Your task to perform on an android device: Open Google Chrome and click the shortcut for Amazon.com Image 0: 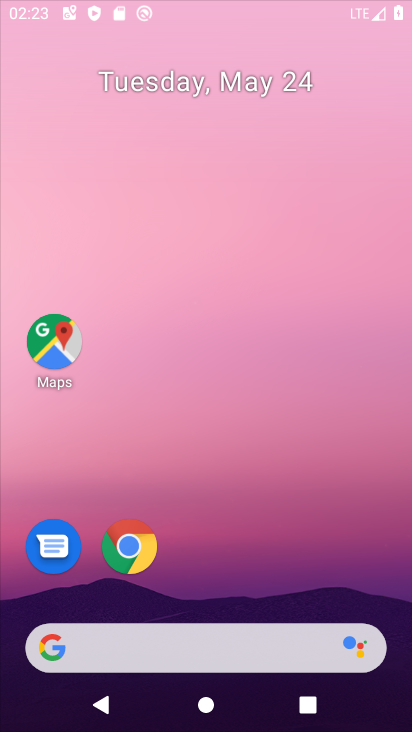
Step 0: click (313, 163)
Your task to perform on an android device: Open Google Chrome and click the shortcut for Amazon.com Image 1: 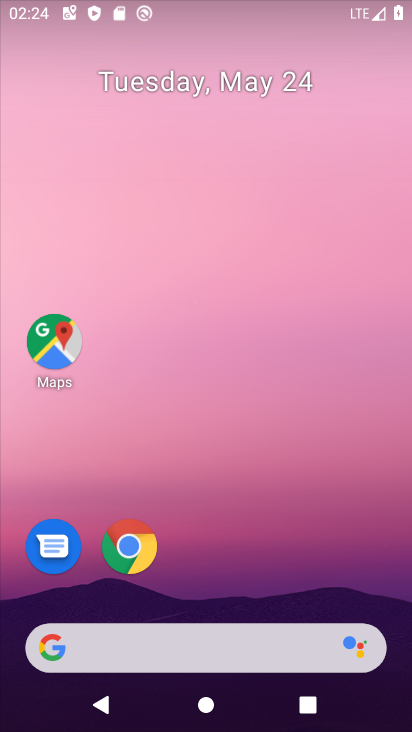
Step 1: drag from (205, 592) to (255, 195)
Your task to perform on an android device: Open Google Chrome and click the shortcut for Amazon.com Image 2: 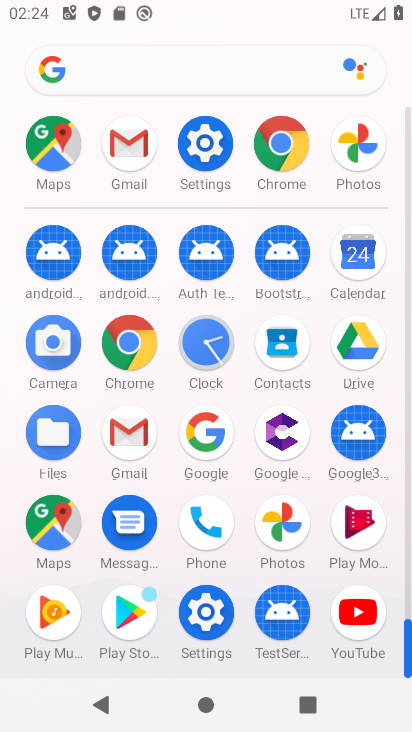
Step 2: click (66, 538)
Your task to perform on an android device: Open Google Chrome and click the shortcut for Amazon.com Image 3: 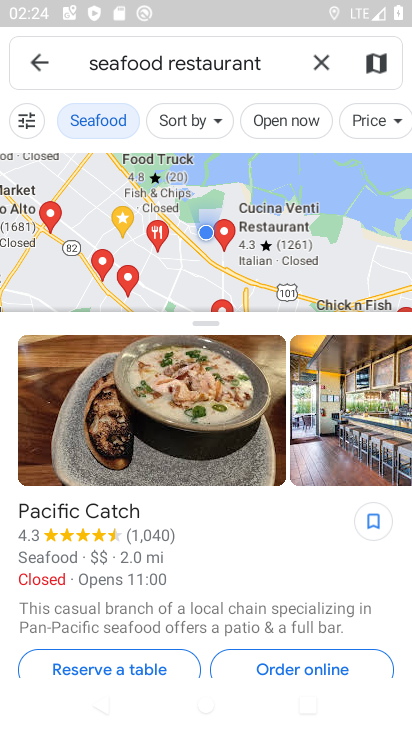
Step 3: drag from (225, 561) to (281, 264)
Your task to perform on an android device: Open Google Chrome and click the shortcut for Amazon.com Image 4: 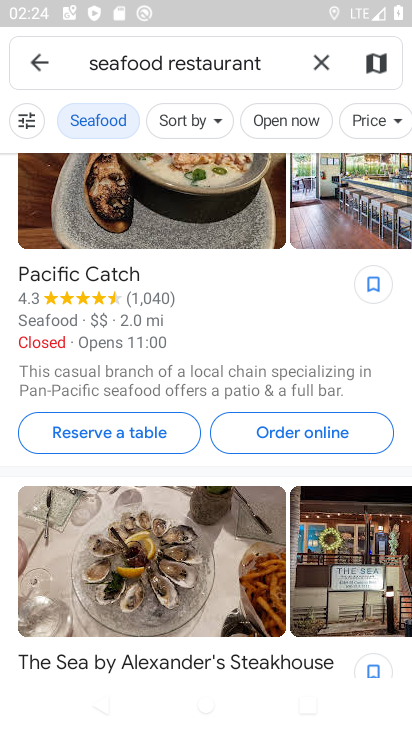
Step 4: drag from (273, 240) to (343, 664)
Your task to perform on an android device: Open Google Chrome and click the shortcut for Amazon.com Image 5: 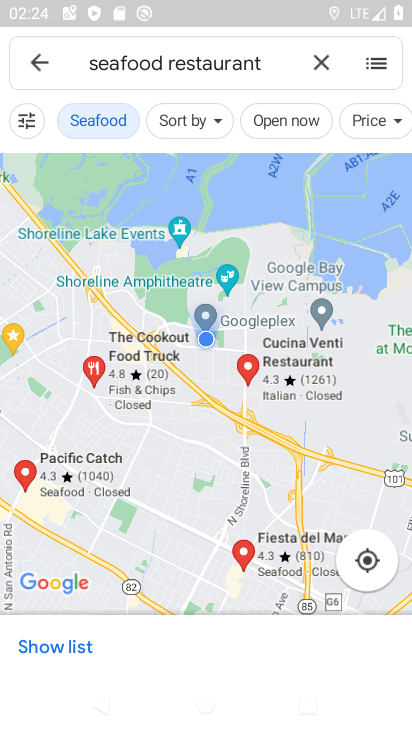
Step 5: press home button
Your task to perform on an android device: Open Google Chrome and click the shortcut for Amazon.com Image 6: 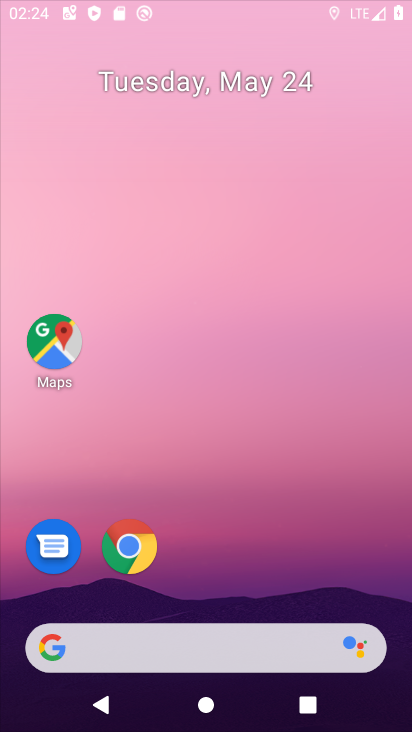
Step 6: drag from (182, 633) to (318, 126)
Your task to perform on an android device: Open Google Chrome and click the shortcut for Amazon.com Image 7: 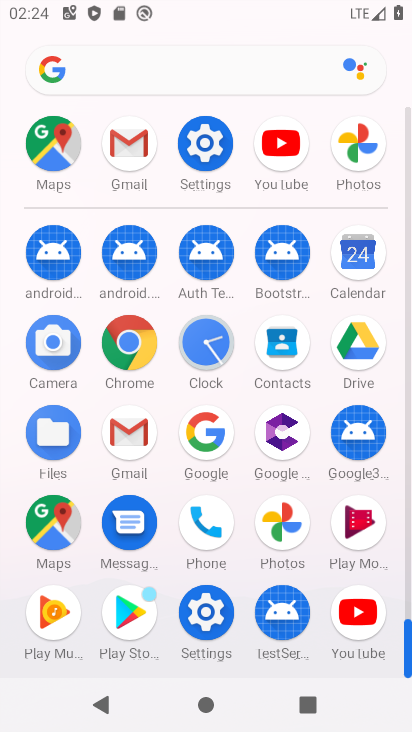
Step 7: click (130, 342)
Your task to perform on an android device: Open Google Chrome and click the shortcut for Amazon.com Image 8: 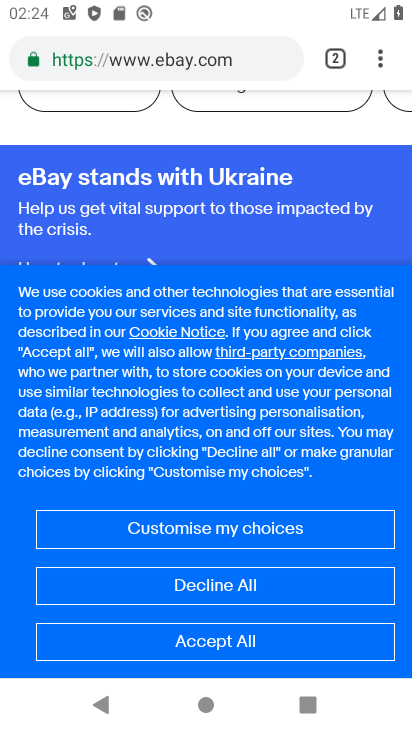
Step 8: drag from (300, 184) to (411, 229)
Your task to perform on an android device: Open Google Chrome and click the shortcut for Amazon.com Image 9: 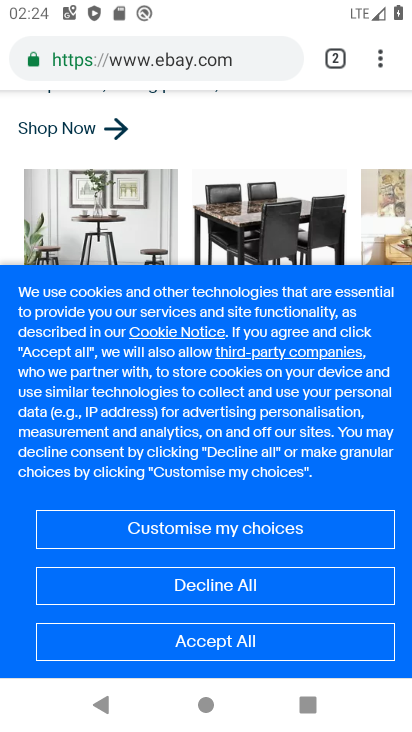
Step 9: click (375, 53)
Your task to perform on an android device: Open Google Chrome and click the shortcut for Amazon.com Image 10: 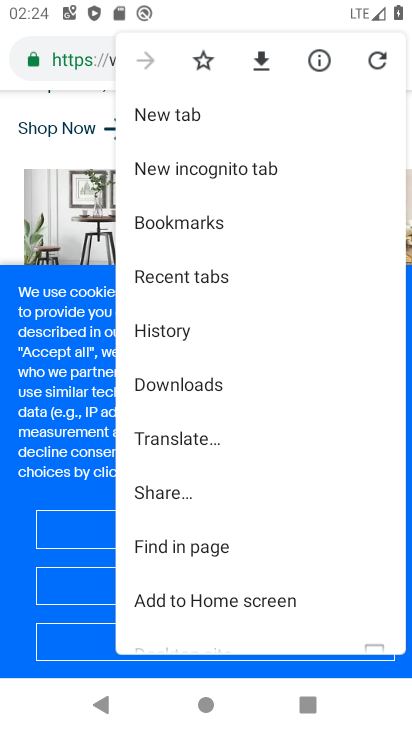
Step 10: click (60, 154)
Your task to perform on an android device: Open Google Chrome and click the shortcut for Amazon.com Image 11: 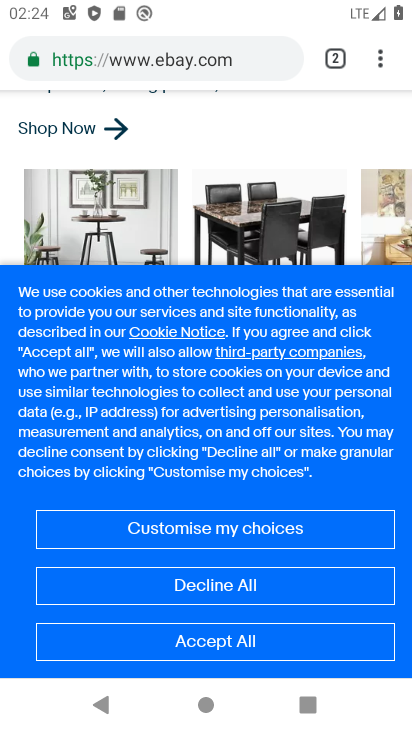
Step 11: click (326, 68)
Your task to perform on an android device: Open Google Chrome and click the shortcut for Amazon.com Image 12: 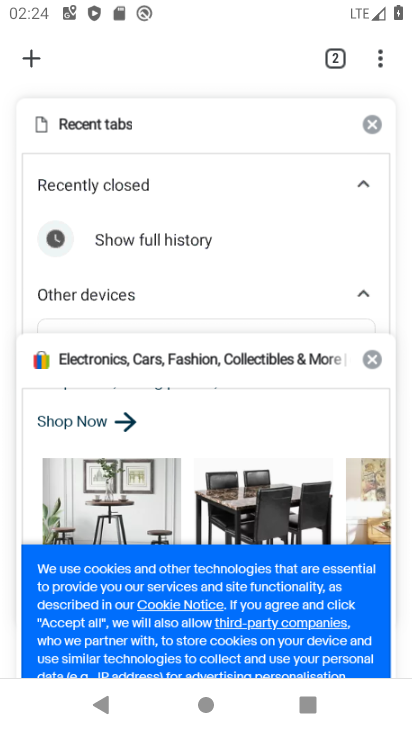
Step 12: click (30, 63)
Your task to perform on an android device: Open Google Chrome and click the shortcut for Amazon.com Image 13: 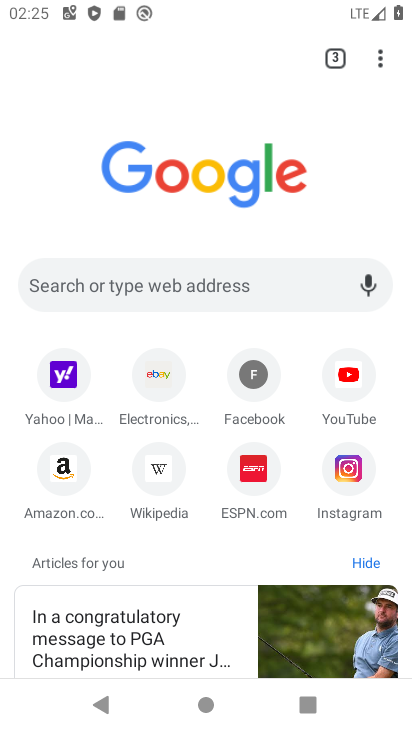
Step 13: click (56, 468)
Your task to perform on an android device: Open Google Chrome and click the shortcut for Amazon.com Image 14: 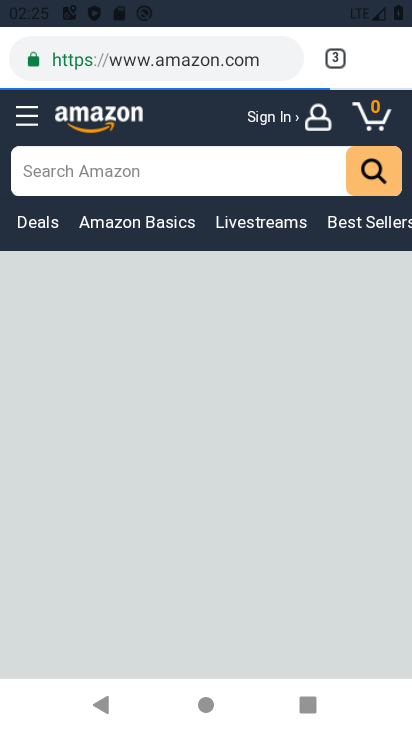
Step 14: task complete